Your task to perform on an android device: Open notification settings Image 0: 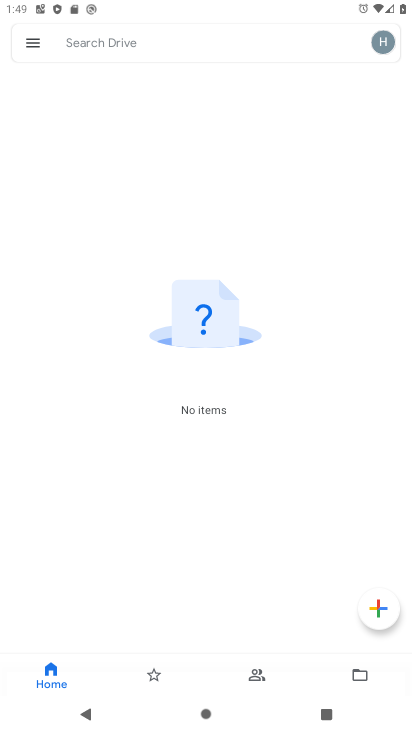
Step 0: press home button
Your task to perform on an android device: Open notification settings Image 1: 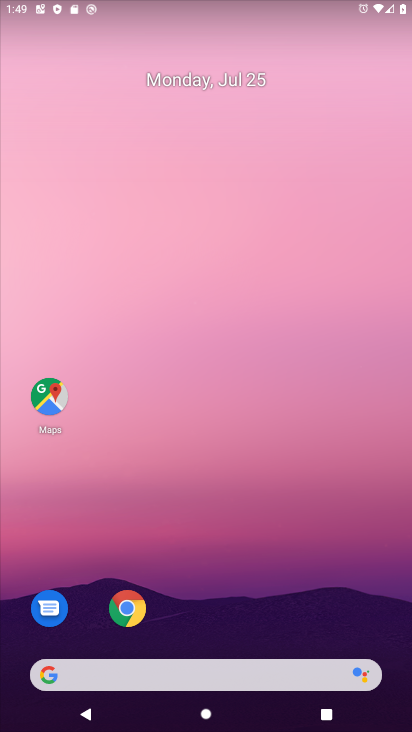
Step 1: drag from (284, 593) to (268, 94)
Your task to perform on an android device: Open notification settings Image 2: 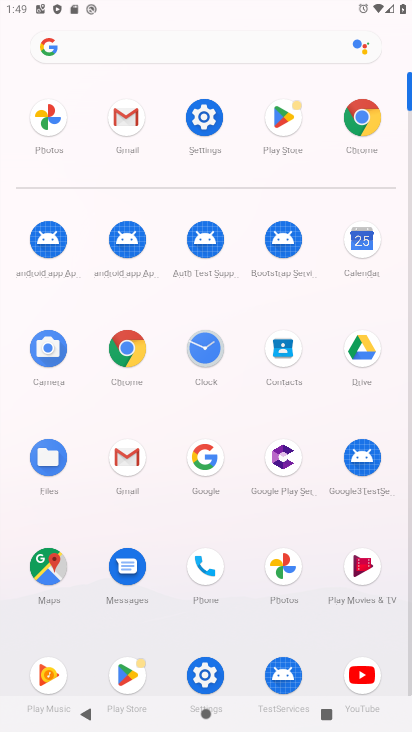
Step 2: click (198, 112)
Your task to perform on an android device: Open notification settings Image 3: 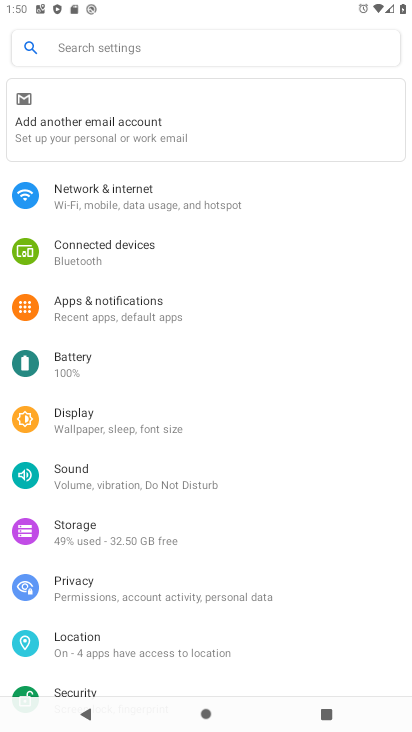
Step 3: click (114, 317)
Your task to perform on an android device: Open notification settings Image 4: 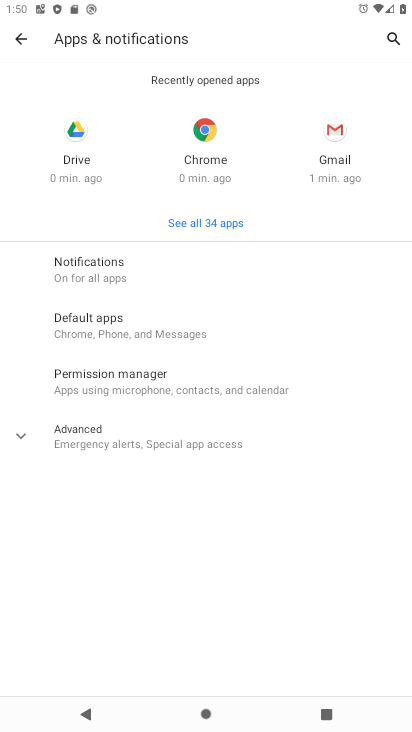
Step 4: click (94, 260)
Your task to perform on an android device: Open notification settings Image 5: 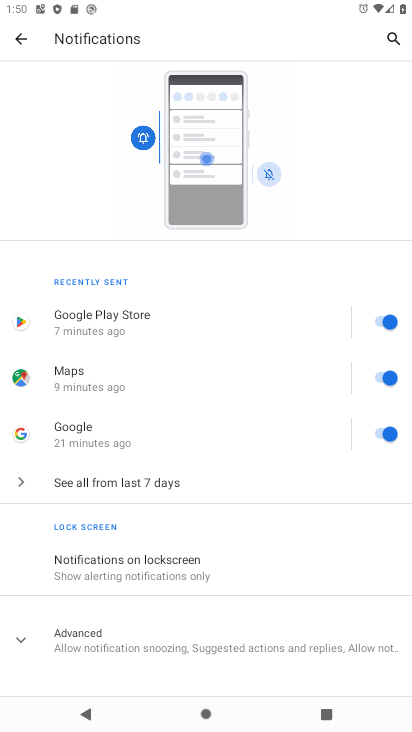
Step 5: task complete